Your task to perform on an android device: empty trash in google photos Image 0: 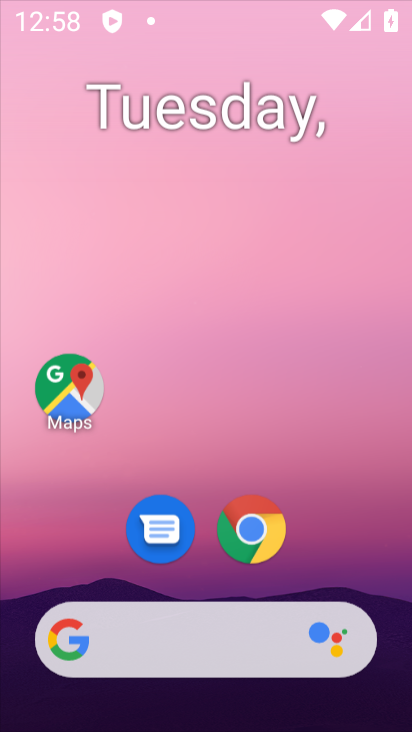
Step 0: drag from (105, 586) to (205, 108)
Your task to perform on an android device: empty trash in google photos Image 1: 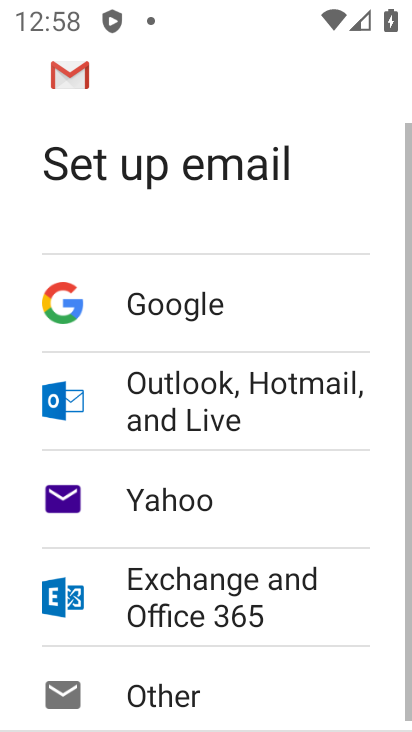
Step 1: press home button
Your task to perform on an android device: empty trash in google photos Image 2: 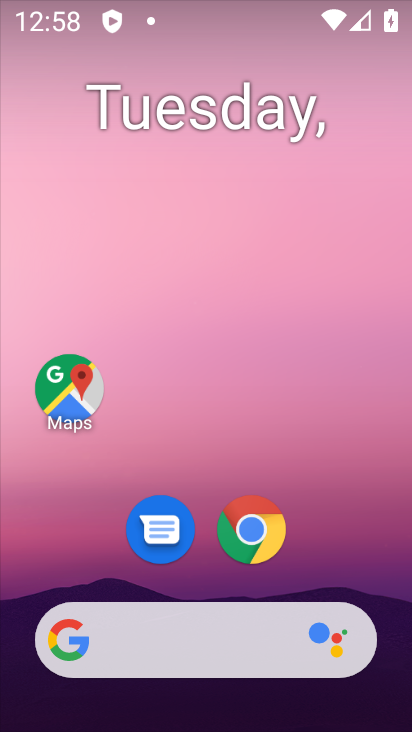
Step 2: drag from (127, 597) to (294, 8)
Your task to perform on an android device: empty trash in google photos Image 3: 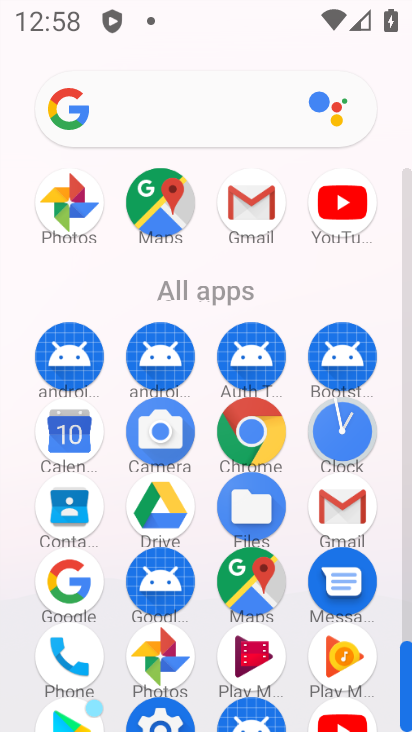
Step 3: drag from (145, 642) to (216, 365)
Your task to perform on an android device: empty trash in google photos Image 4: 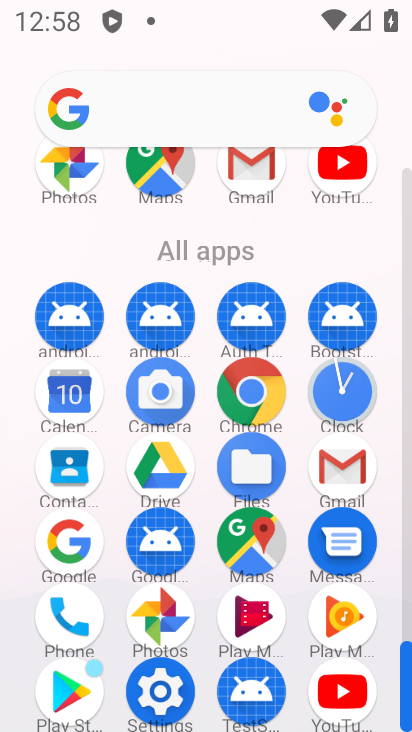
Step 4: click (361, 457)
Your task to perform on an android device: empty trash in google photos Image 5: 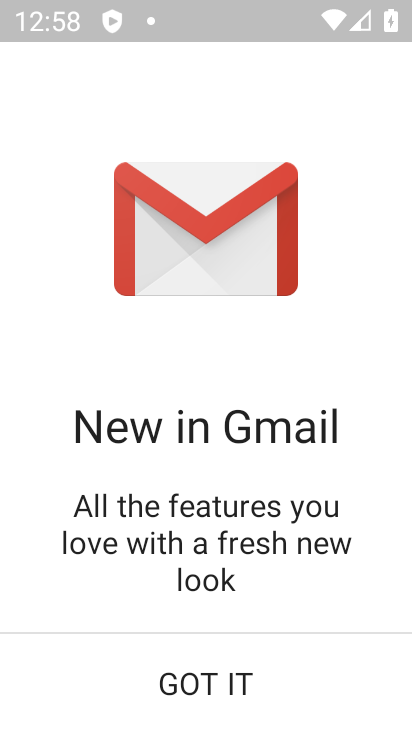
Step 5: click (227, 664)
Your task to perform on an android device: empty trash in google photos Image 6: 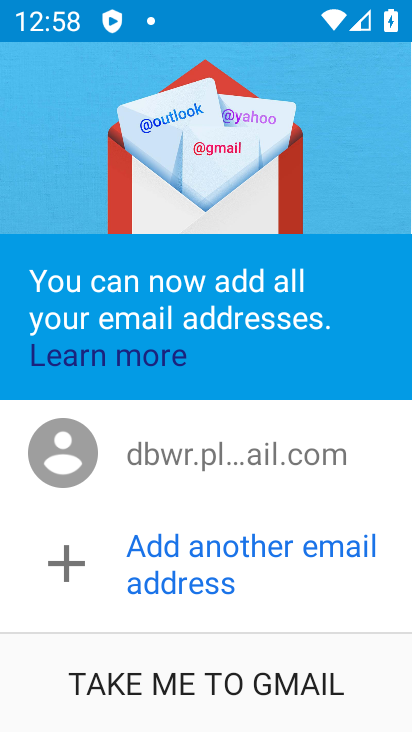
Step 6: click (214, 671)
Your task to perform on an android device: empty trash in google photos Image 7: 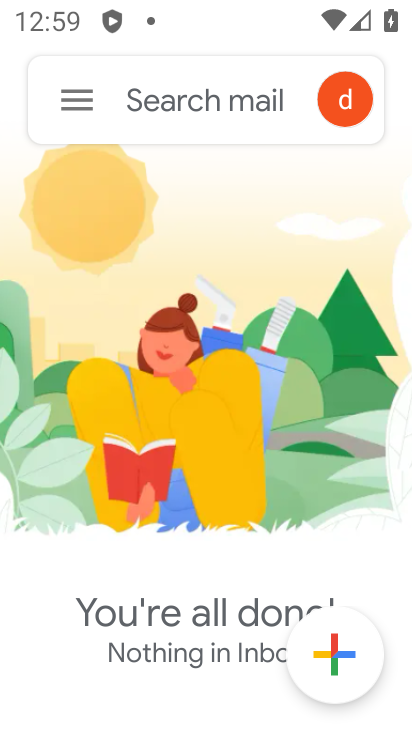
Step 7: click (76, 94)
Your task to perform on an android device: empty trash in google photos Image 8: 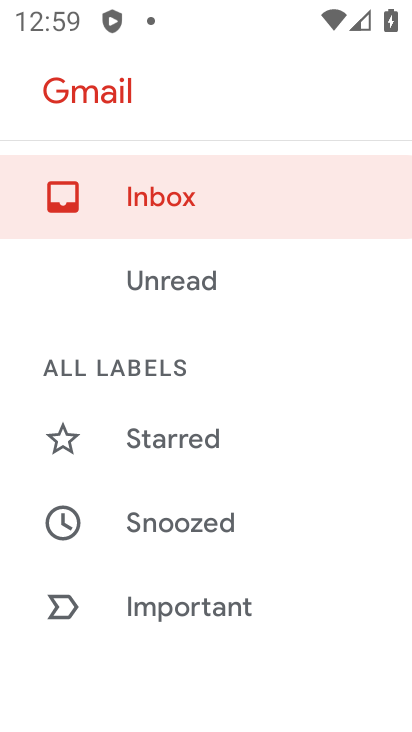
Step 8: drag from (184, 597) to (291, 203)
Your task to perform on an android device: empty trash in google photos Image 9: 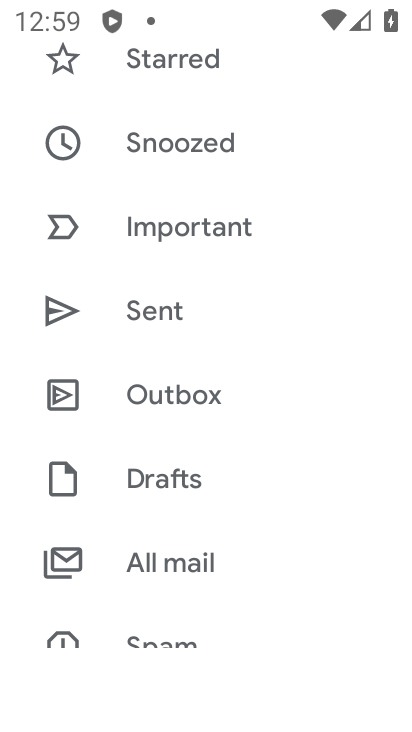
Step 9: drag from (211, 595) to (287, 270)
Your task to perform on an android device: empty trash in google photos Image 10: 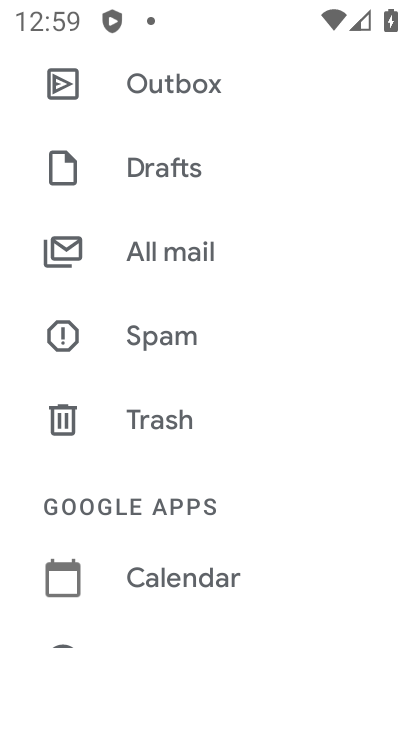
Step 10: click (184, 429)
Your task to perform on an android device: empty trash in google photos Image 11: 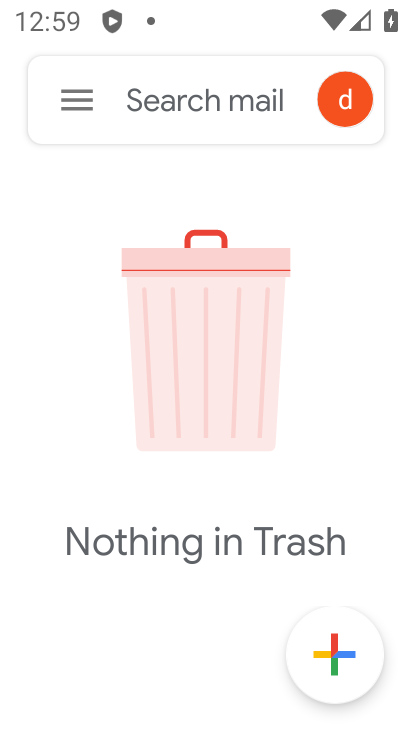
Step 11: task complete